Your task to perform on an android device: Open Google Image 0: 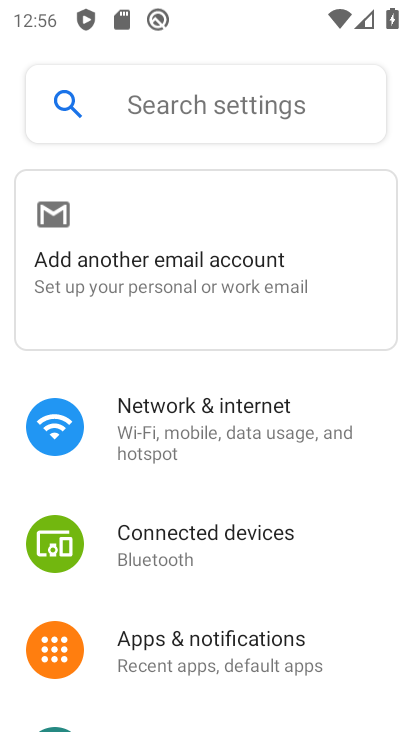
Step 0: press home button
Your task to perform on an android device: Open Google Image 1: 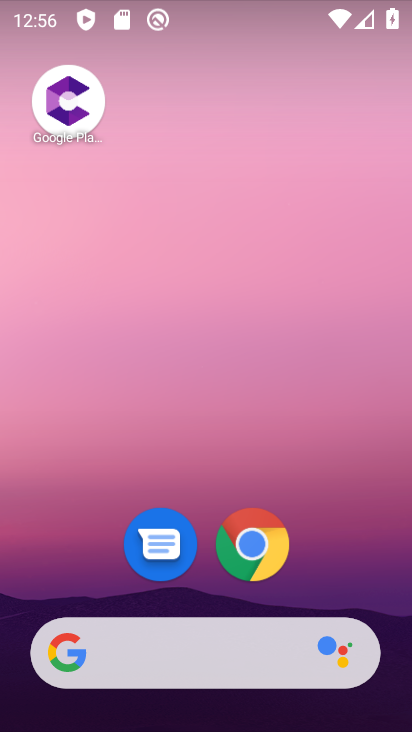
Step 1: drag from (88, 547) to (144, 236)
Your task to perform on an android device: Open Google Image 2: 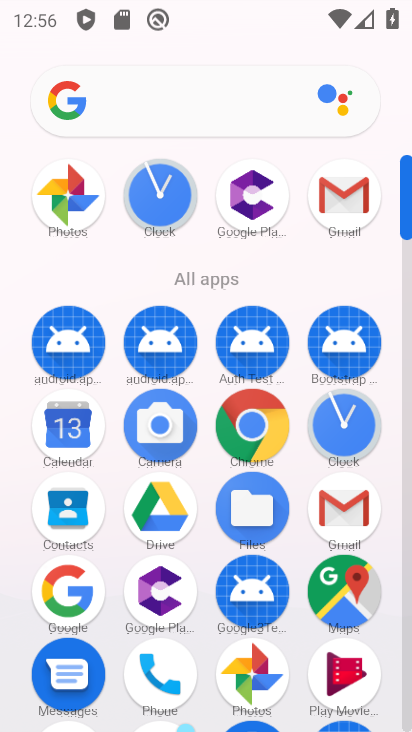
Step 2: click (53, 588)
Your task to perform on an android device: Open Google Image 3: 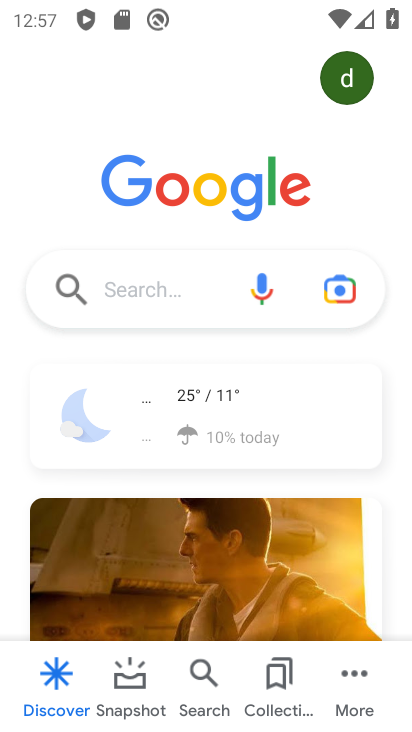
Step 3: task complete